Your task to perform on an android device: Open Maps and search for coffee Image 0: 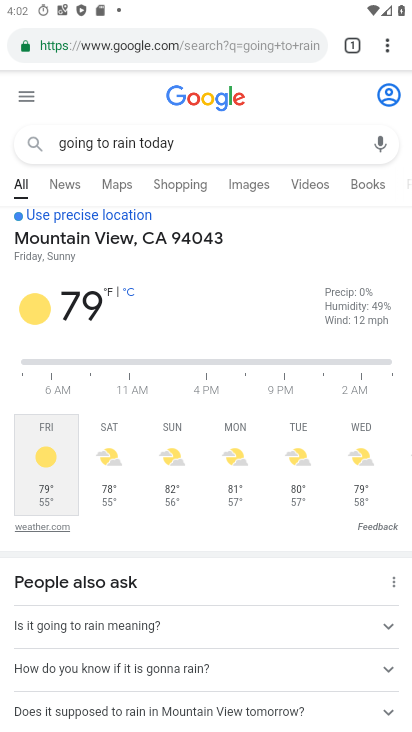
Step 0: press home button
Your task to perform on an android device: Open Maps and search for coffee Image 1: 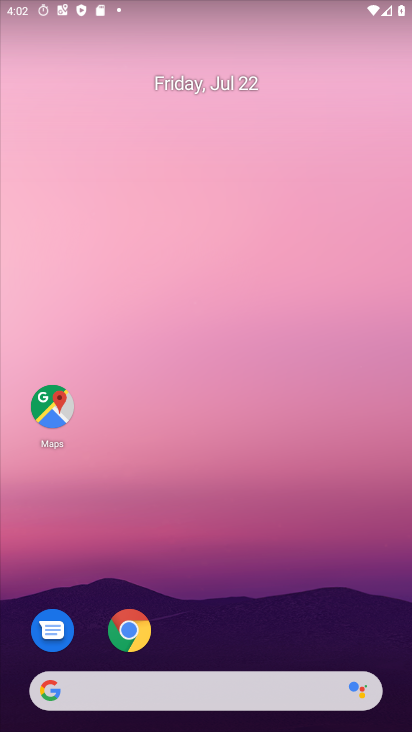
Step 1: drag from (209, 701) to (220, 11)
Your task to perform on an android device: Open Maps and search for coffee Image 2: 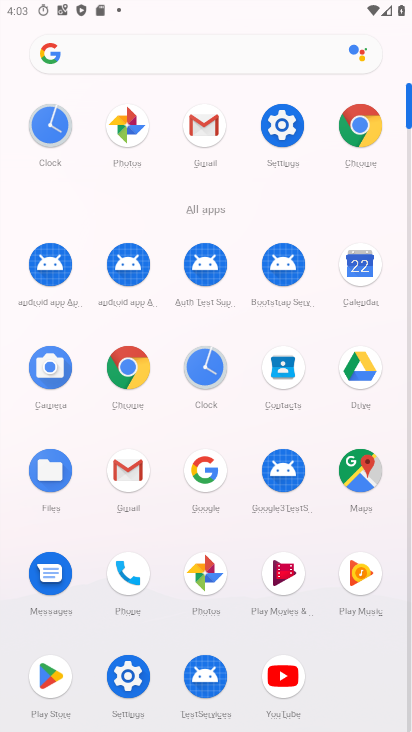
Step 2: click (363, 483)
Your task to perform on an android device: Open Maps and search for coffee Image 3: 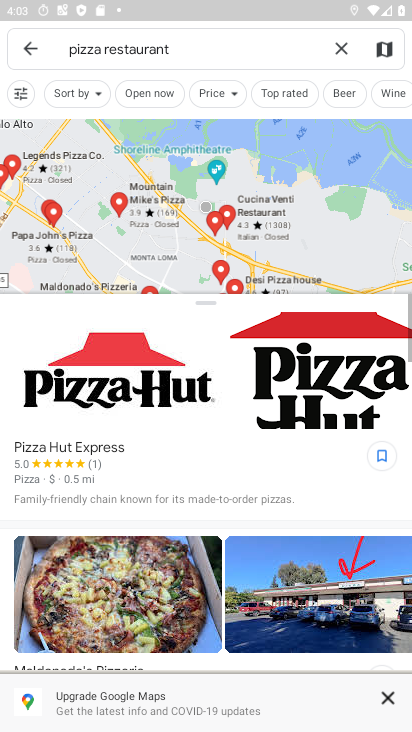
Step 3: press back button
Your task to perform on an android device: Open Maps and search for coffee Image 4: 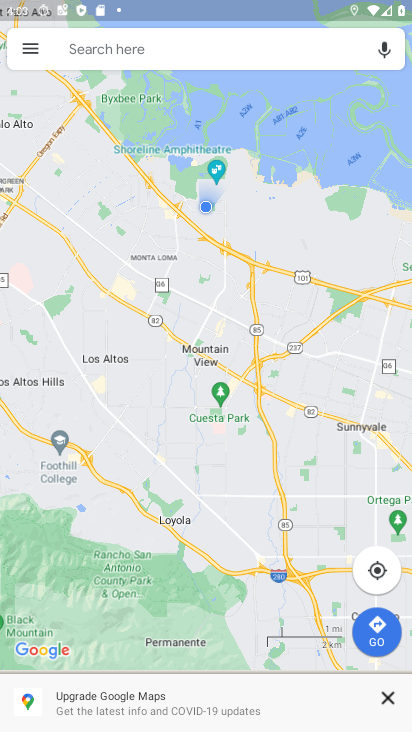
Step 4: click (32, 51)
Your task to perform on an android device: Open Maps and search for coffee Image 5: 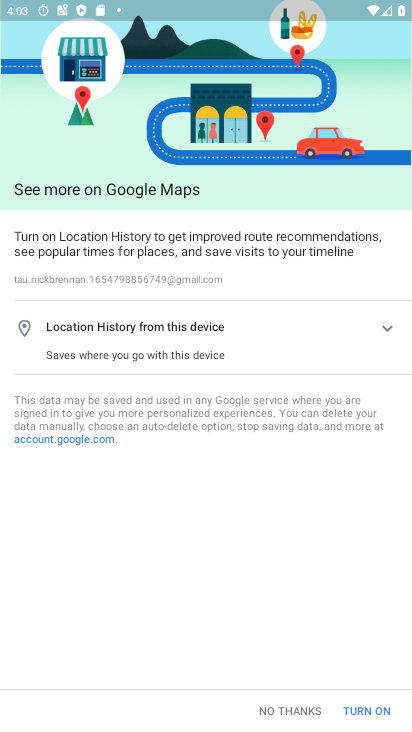
Step 5: press home button
Your task to perform on an android device: Open Maps and search for coffee Image 6: 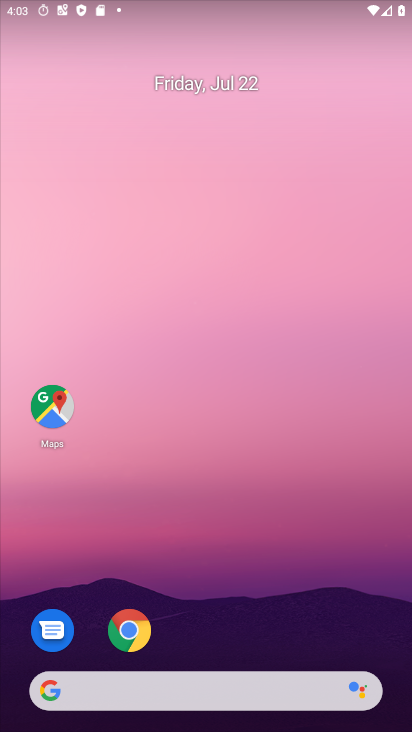
Step 6: drag from (221, 687) to (217, 9)
Your task to perform on an android device: Open Maps and search for coffee Image 7: 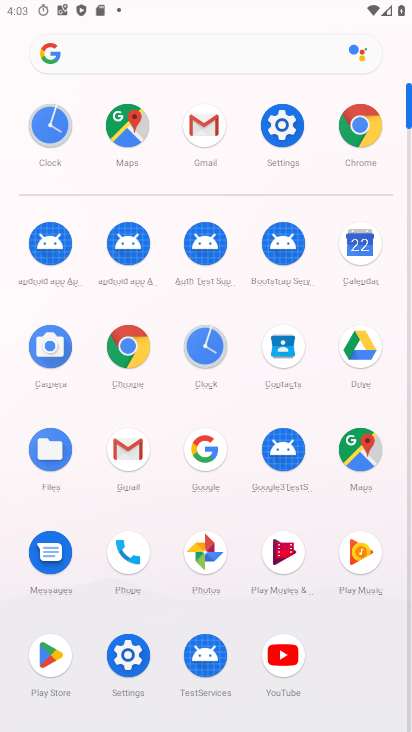
Step 7: click (122, 339)
Your task to perform on an android device: Open Maps and search for coffee Image 8: 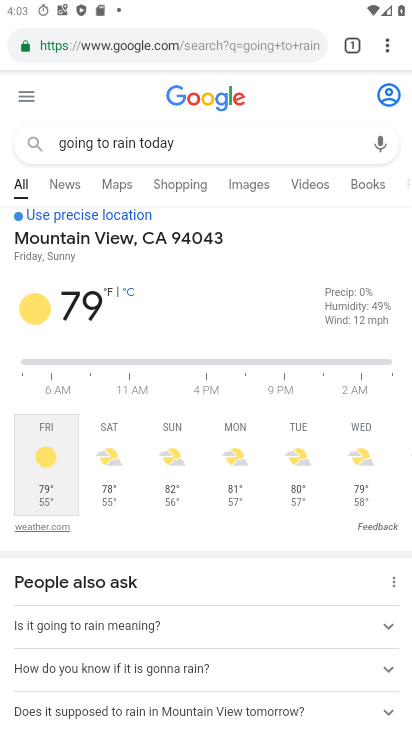
Step 8: click (217, 49)
Your task to perform on an android device: Open Maps and search for coffee Image 9: 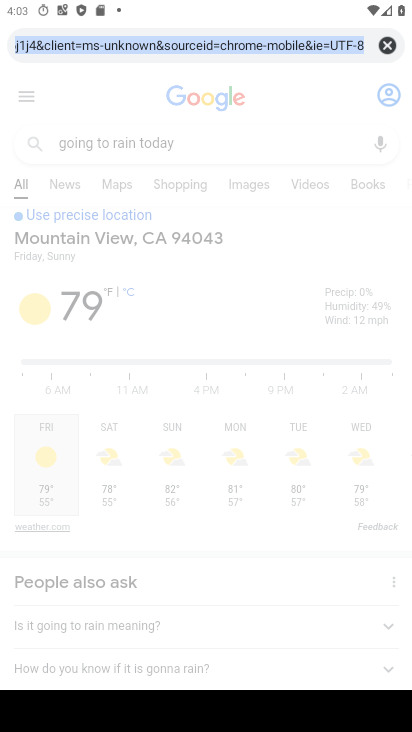
Step 9: click (386, 48)
Your task to perform on an android device: Open Maps and search for coffee Image 10: 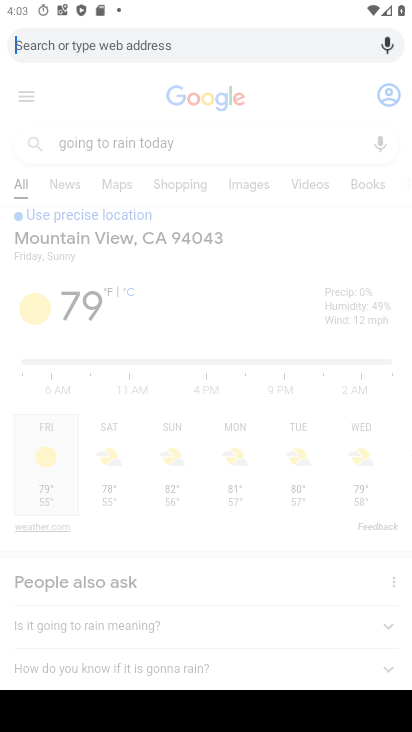
Step 10: type "coffee"
Your task to perform on an android device: Open Maps and search for coffee Image 11: 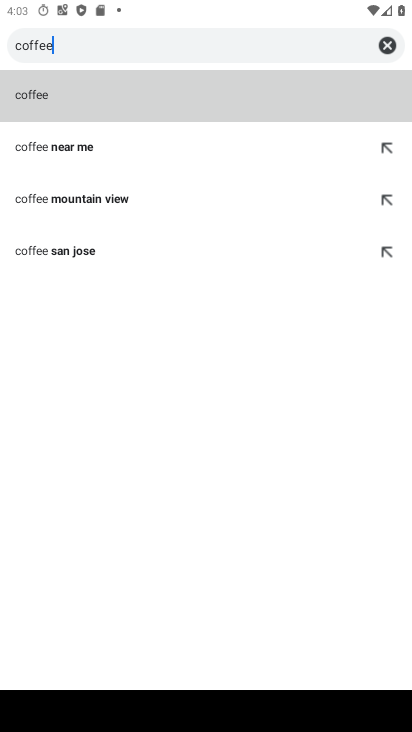
Step 11: click (140, 99)
Your task to perform on an android device: Open Maps and search for coffee Image 12: 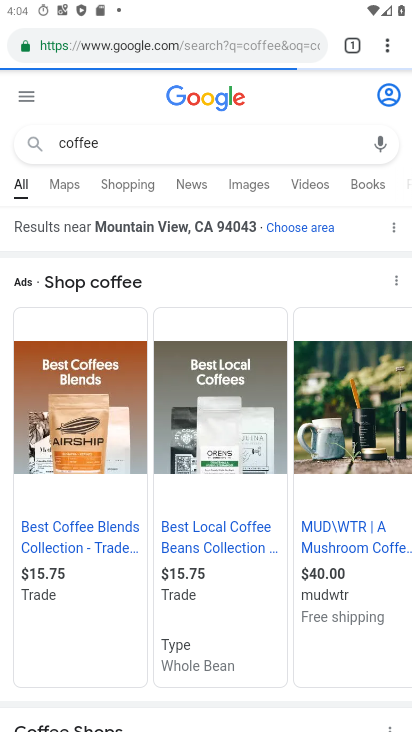
Step 12: click (269, 49)
Your task to perform on an android device: Open Maps and search for coffee Image 13: 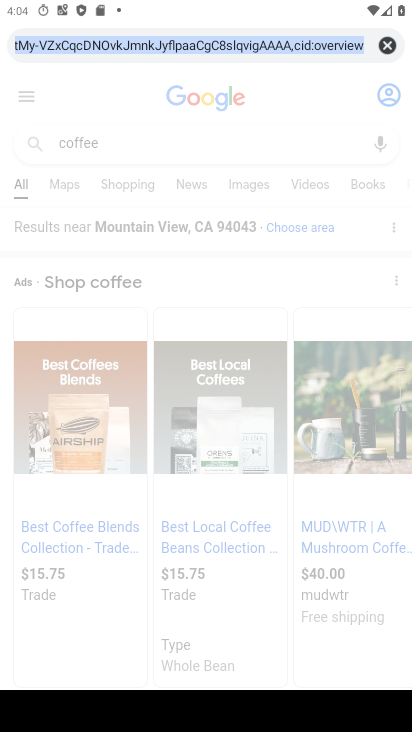
Step 13: click (387, 49)
Your task to perform on an android device: Open Maps and search for coffee Image 14: 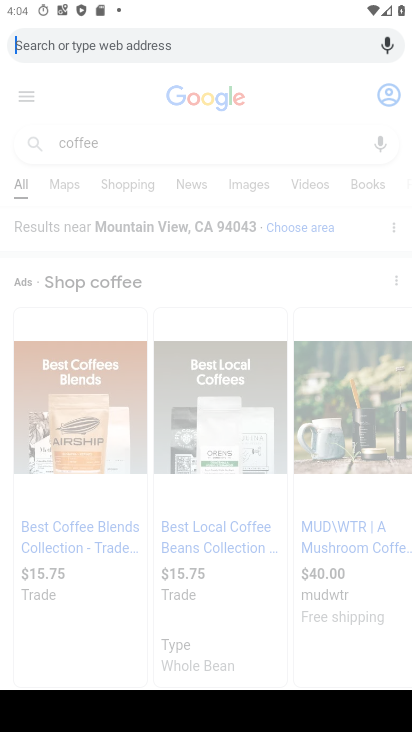
Step 14: type "coffee"
Your task to perform on an android device: Open Maps and search for coffee Image 15: 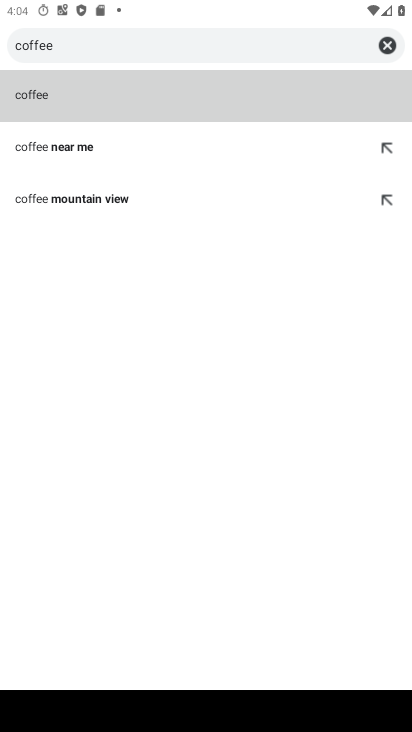
Step 15: click (112, 100)
Your task to perform on an android device: Open Maps and search for coffee Image 16: 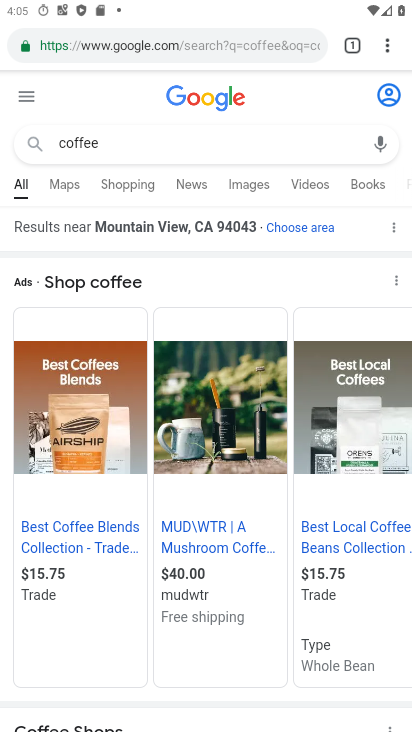
Step 16: task complete